Your task to perform on an android device: open chrome privacy settings Image 0: 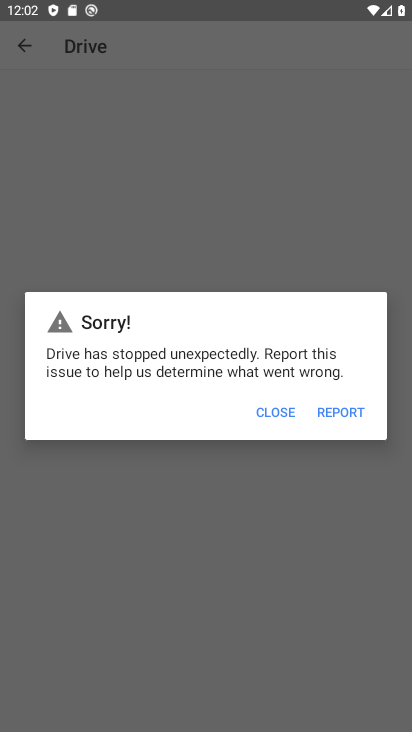
Step 0: press home button
Your task to perform on an android device: open chrome privacy settings Image 1: 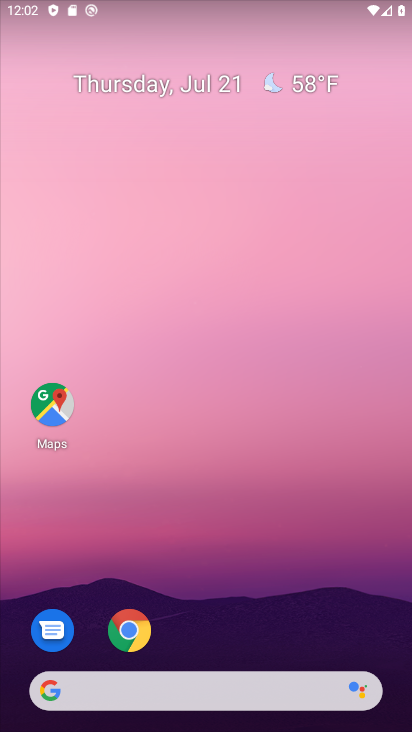
Step 1: click (145, 637)
Your task to perform on an android device: open chrome privacy settings Image 2: 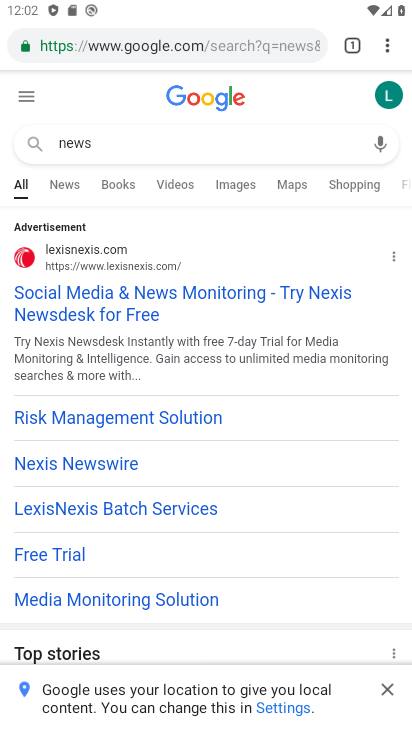
Step 2: click (391, 43)
Your task to perform on an android device: open chrome privacy settings Image 3: 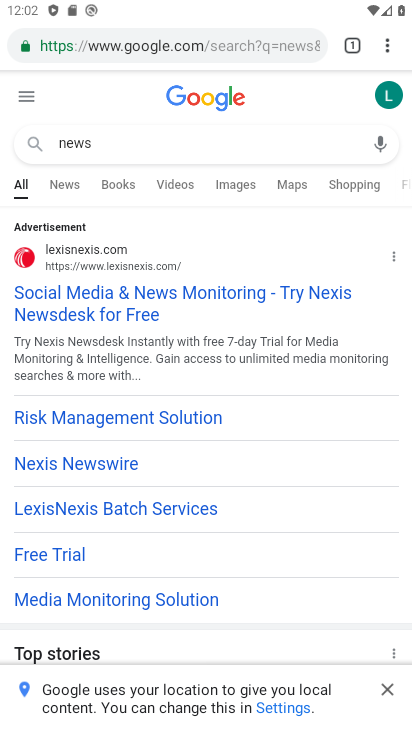
Step 3: drag from (391, 43) to (272, 504)
Your task to perform on an android device: open chrome privacy settings Image 4: 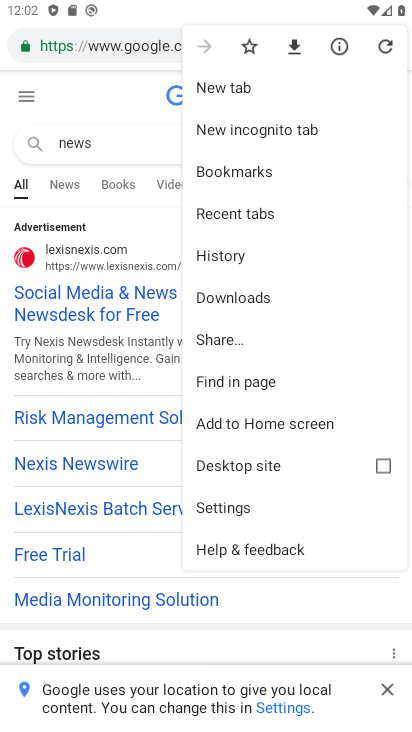
Step 4: click (272, 504)
Your task to perform on an android device: open chrome privacy settings Image 5: 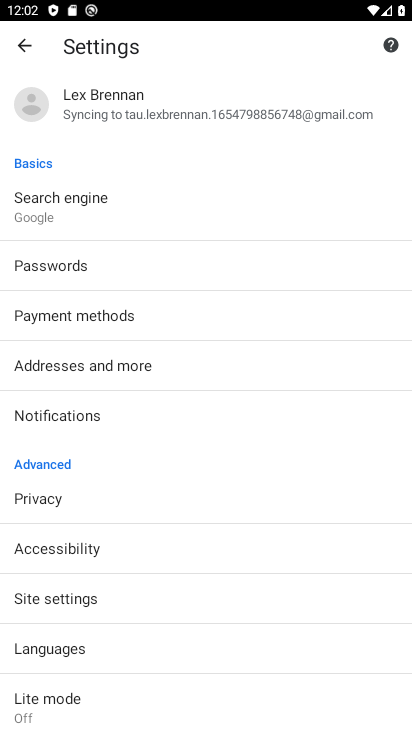
Step 5: click (94, 496)
Your task to perform on an android device: open chrome privacy settings Image 6: 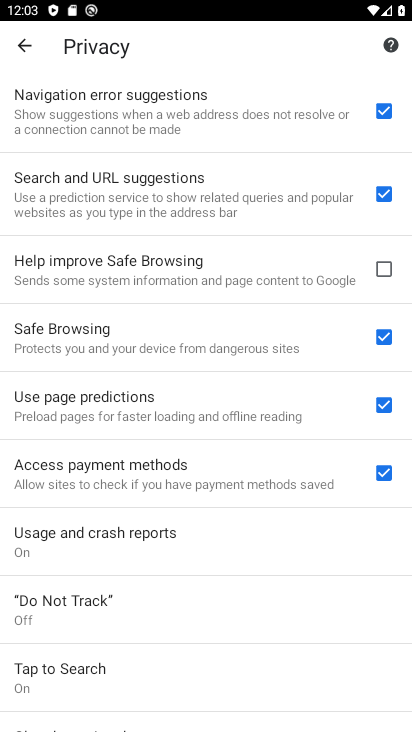
Step 6: task complete